Your task to perform on an android device: See recent photos Image 0: 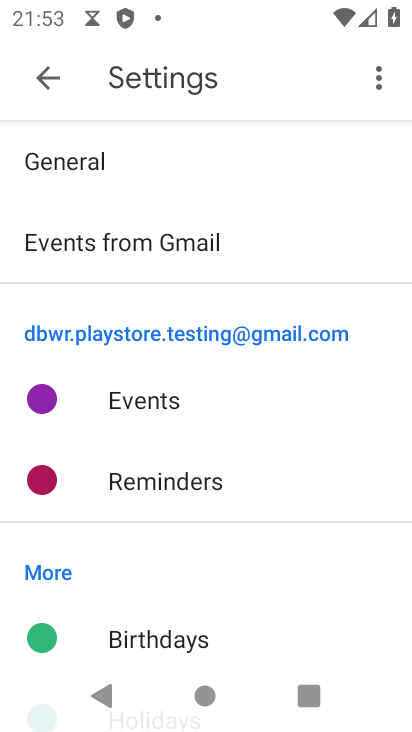
Step 0: press home button
Your task to perform on an android device: See recent photos Image 1: 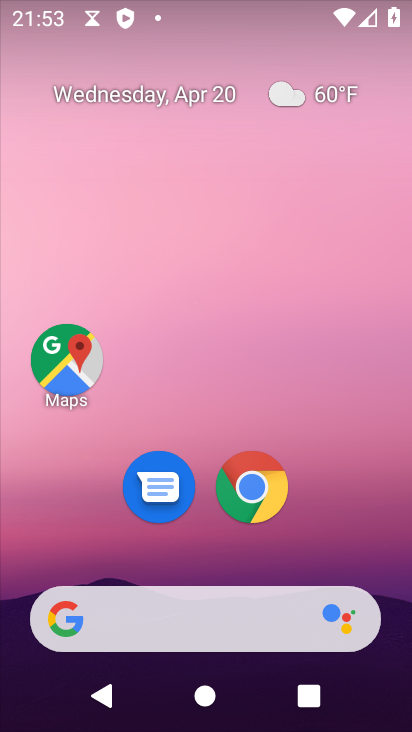
Step 1: drag from (61, 563) to (224, 256)
Your task to perform on an android device: See recent photos Image 2: 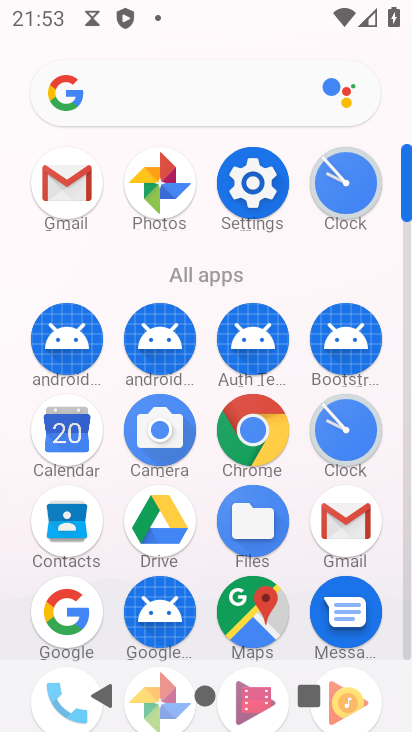
Step 2: click (157, 176)
Your task to perform on an android device: See recent photos Image 3: 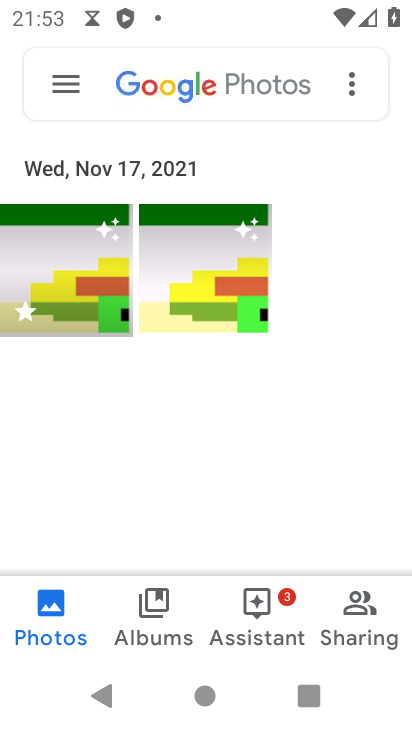
Step 3: click (48, 619)
Your task to perform on an android device: See recent photos Image 4: 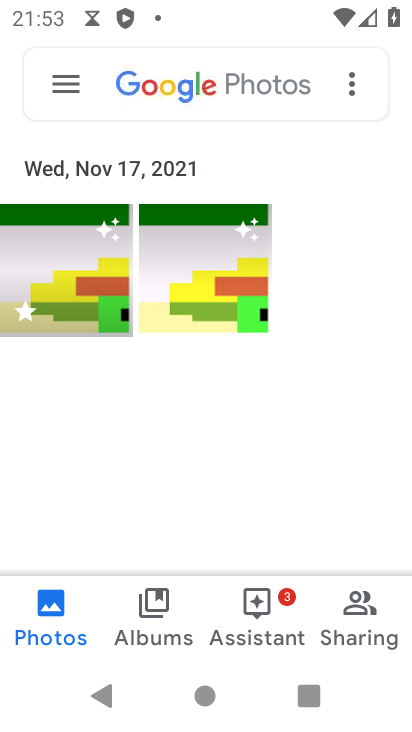
Step 4: task complete